Your task to perform on an android device: Do I have any events today? Image 0: 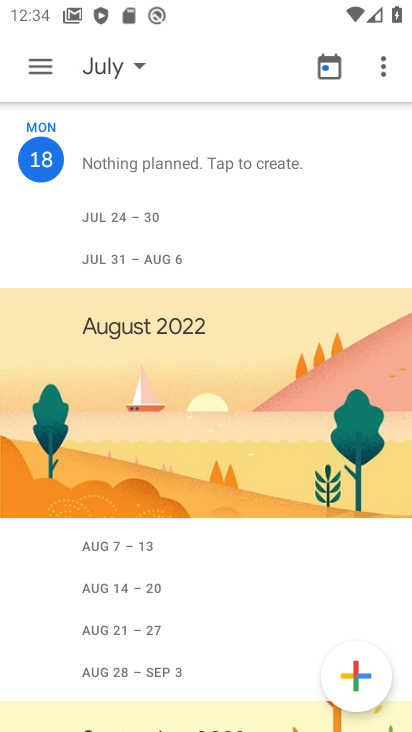
Step 0: drag from (282, 410) to (341, 236)
Your task to perform on an android device: Do I have any events today? Image 1: 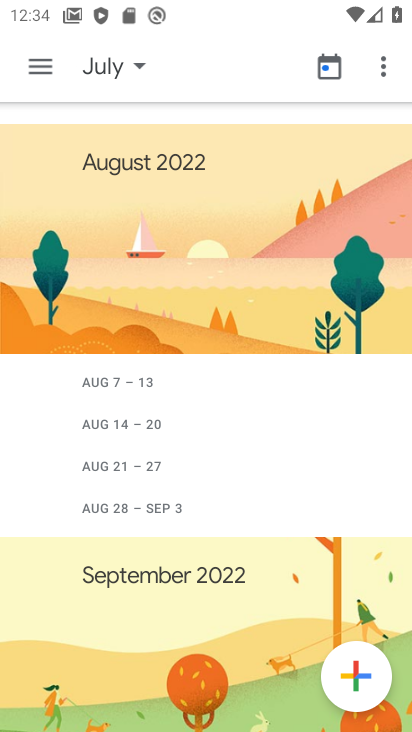
Step 1: task complete